Your task to perform on an android device: Toggle the flashlight Image 0: 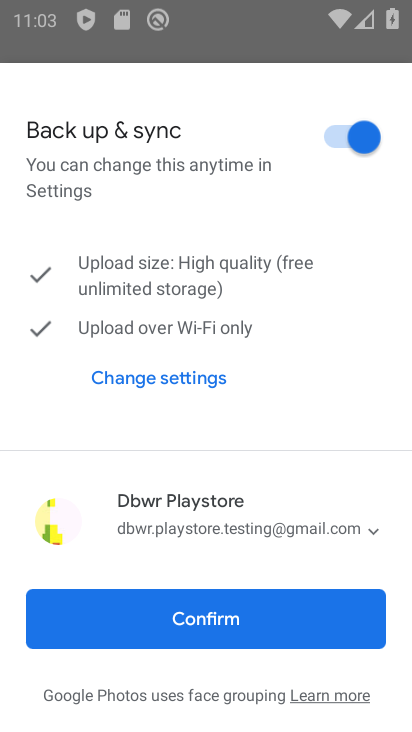
Step 0: press home button
Your task to perform on an android device: Toggle the flashlight Image 1: 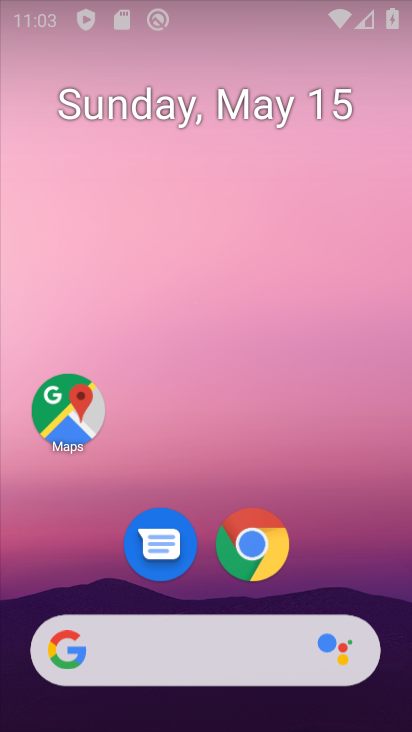
Step 1: drag from (296, 11) to (257, 532)
Your task to perform on an android device: Toggle the flashlight Image 2: 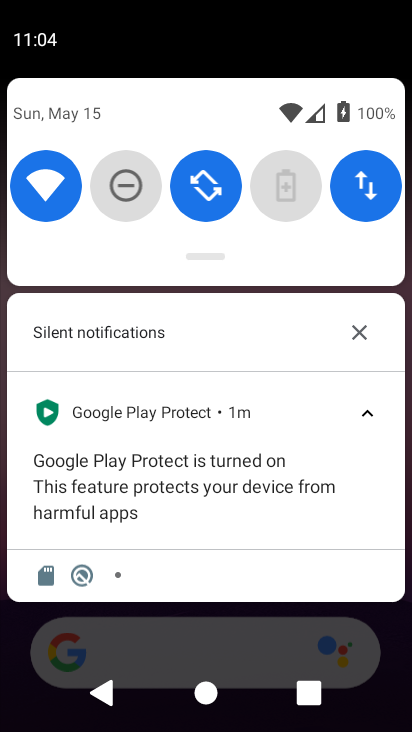
Step 2: drag from (250, 233) to (239, 534)
Your task to perform on an android device: Toggle the flashlight Image 3: 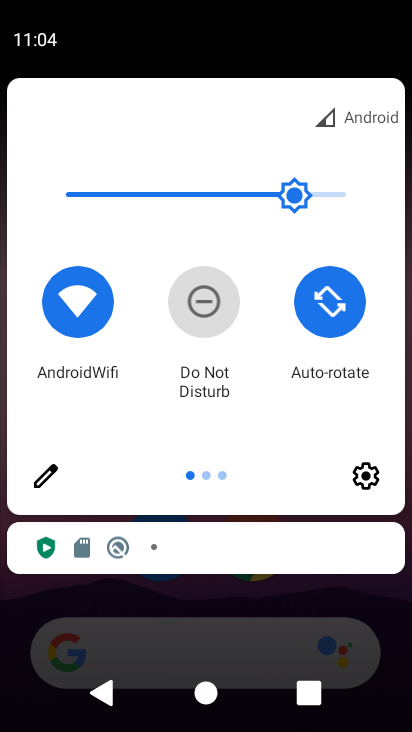
Step 3: drag from (363, 391) to (57, 366)
Your task to perform on an android device: Toggle the flashlight Image 4: 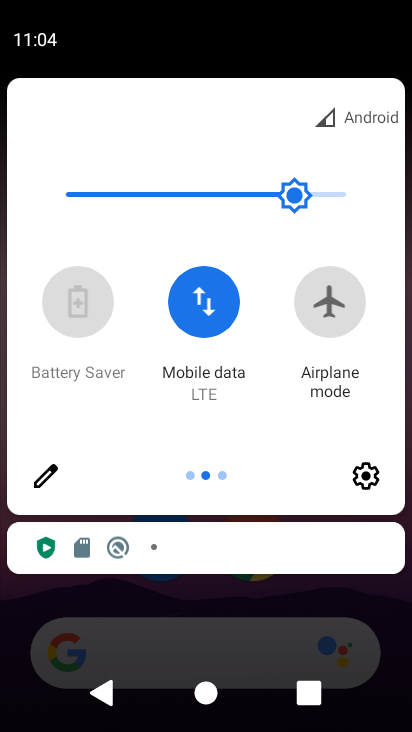
Step 4: drag from (369, 408) to (59, 334)
Your task to perform on an android device: Toggle the flashlight Image 5: 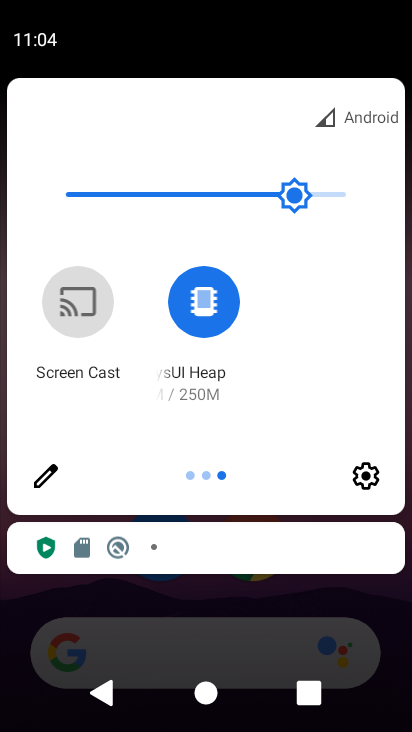
Step 5: click (52, 479)
Your task to perform on an android device: Toggle the flashlight Image 6: 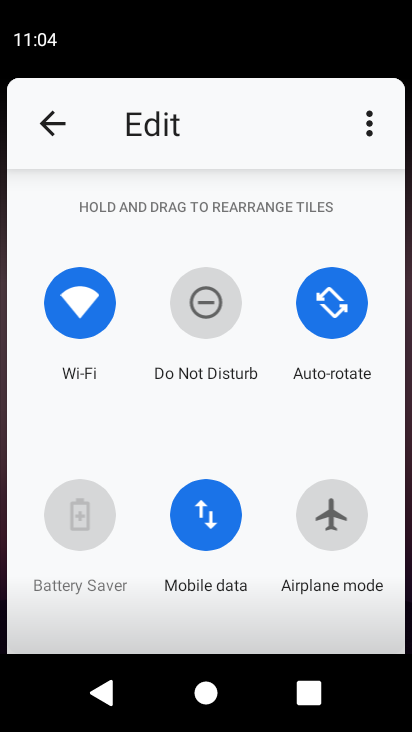
Step 6: task complete